Your task to perform on an android device: open app "Etsy: Buy & Sell Unique Items" (install if not already installed) and go to login screen Image 0: 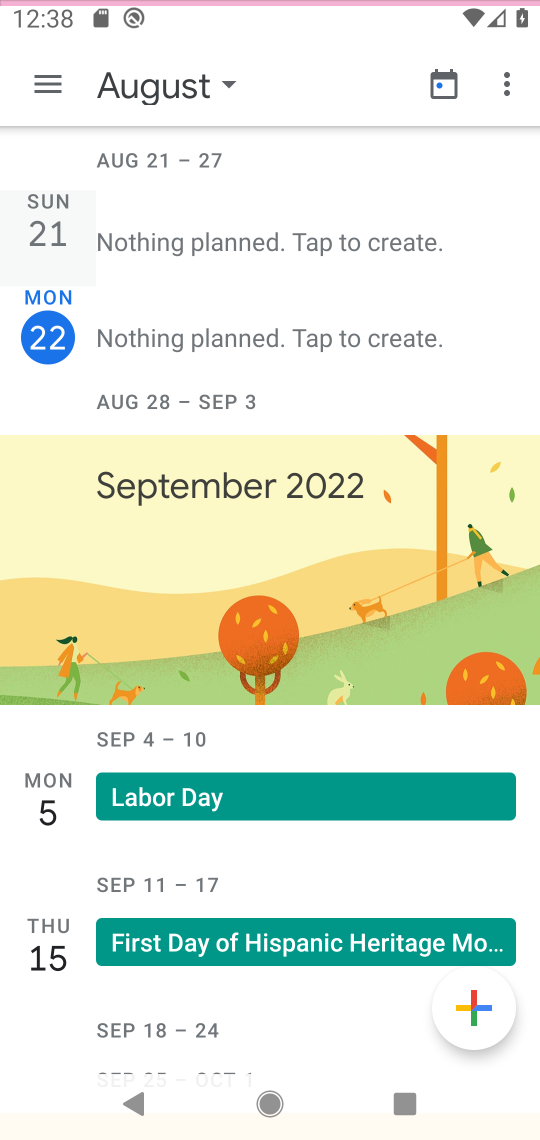
Step 0: press home button
Your task to perform on an android device: open app "Etsy: Buy & Sell Unique Items" (install if not already installed) and go to login screen Image 1: 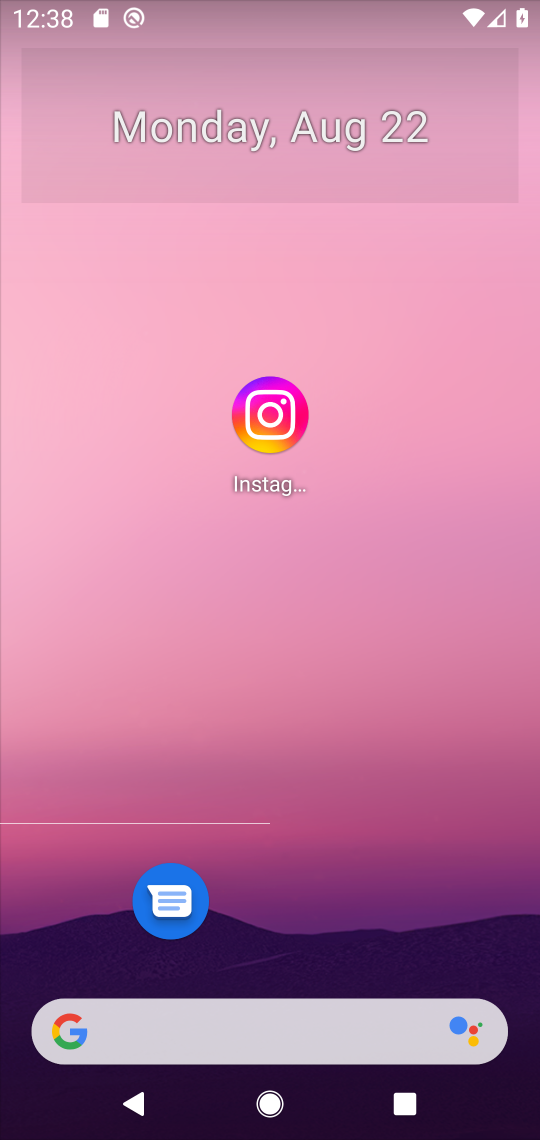
Step 1: press home button
Your task to perform on an android device: open app "Etsy: Buy & Sell Unique Items" (install if not already installed) and go to login screen Image 2: 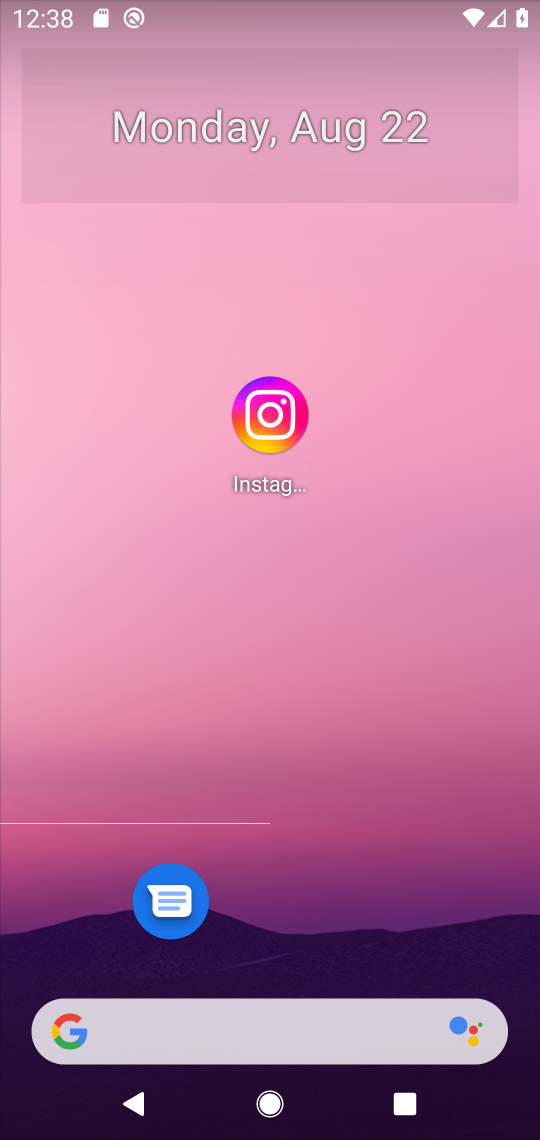
Step 2: press home button
Your task to perform on an android device: open app "Etsy: Buy & Sell Unique Items" (install if not already installed) and go to login screen Image 3: 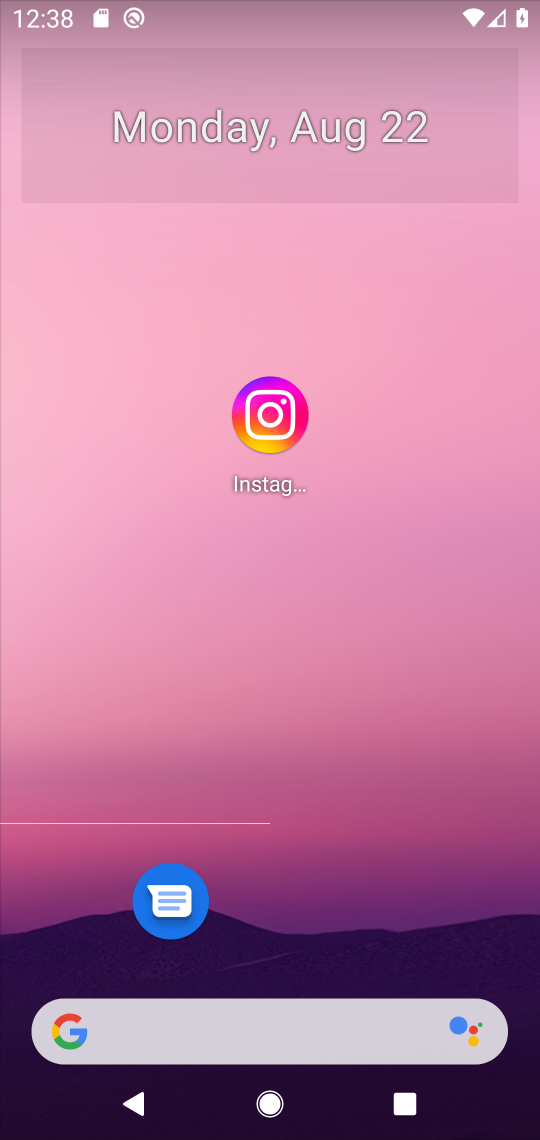
Step 3: drag from (389, 920) to (406, 239)
Your task to perform on an android device: open app "Etsy: Buy & Sell Unique Items" (install if not already installed) and go to login screen Image 4: 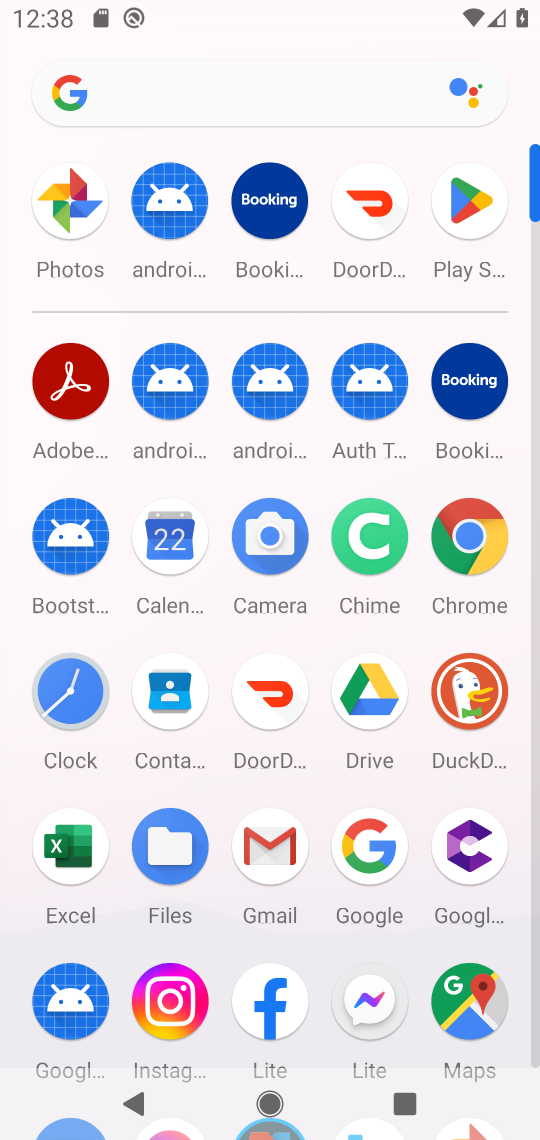
Step 4: click (441, 221)
Your task to perform on an android device: open app "Etsy: Buy & Sell Unique Items" (install if not already installed) and go to login screen Image 5: 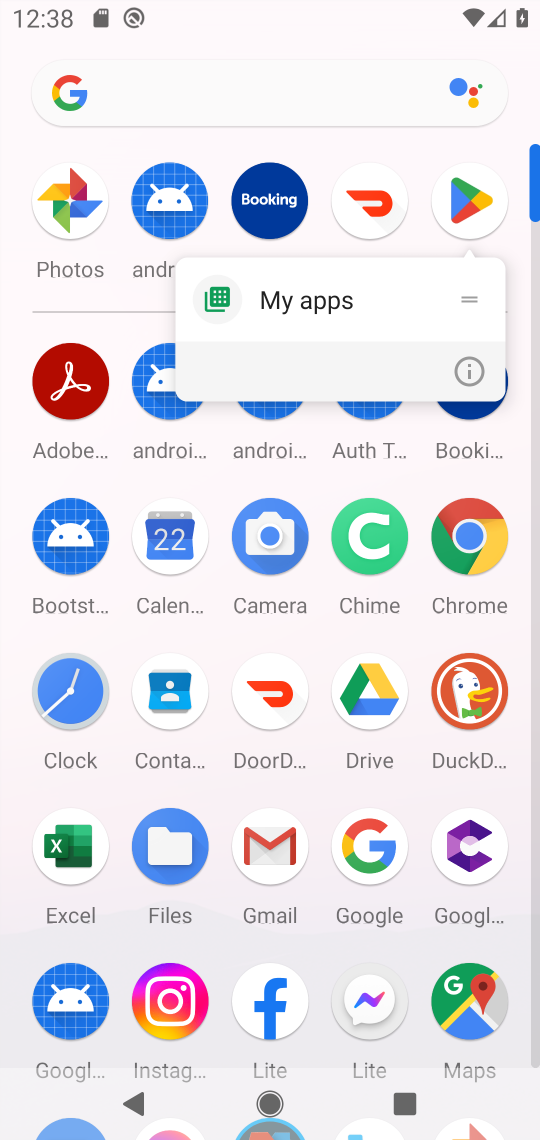
Step 5: click (477, 214)
Your task to perform on an android device: open app "Etsy: Buy & Sell Unique Items" (install if not already installed) and go to login screen Image 6: 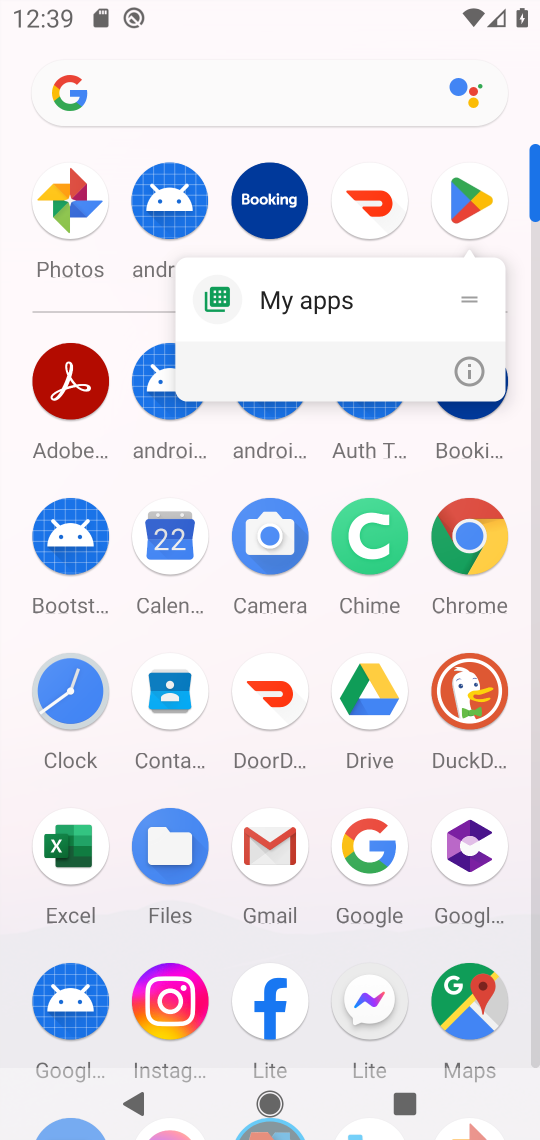
Step 6: click (477, 214)
Your task to perform on an android device: open app "Etsy: Buy & Sell Unique Items" (install if not already installed) and go to login screen Image 7: 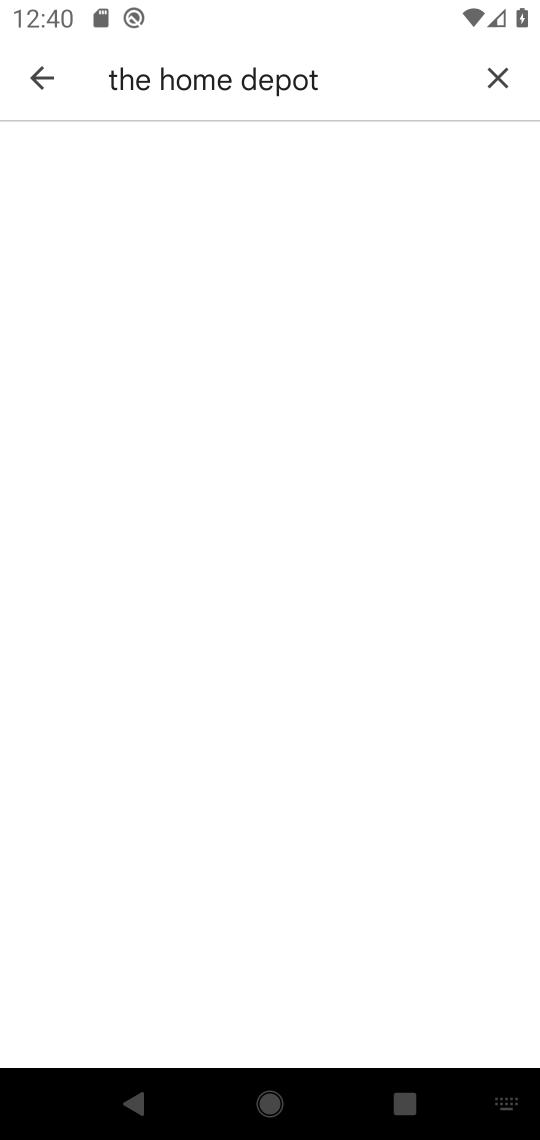
Step 7: click (479, 72)
Your task to perform on an android device: open app "Etsy: Buy & Sell Unique Items" (install if not already installed) and go to login screen Image 8: 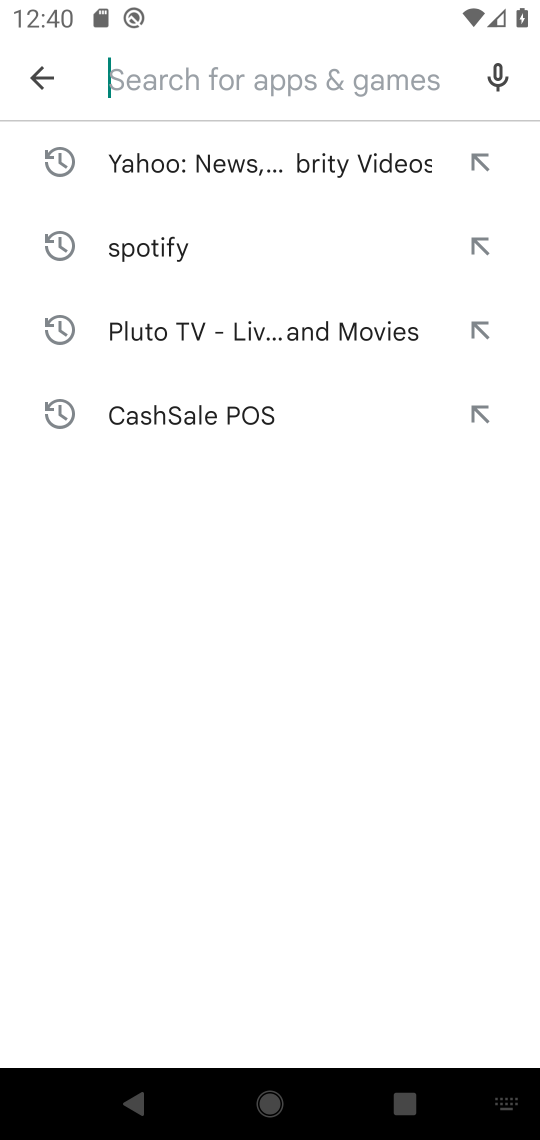
Step 8: type ""
Your task to perform on an android device: open app "Etsy: Buy & Sell Unique Items" (install if not already installed) and go to login screen Image 9: 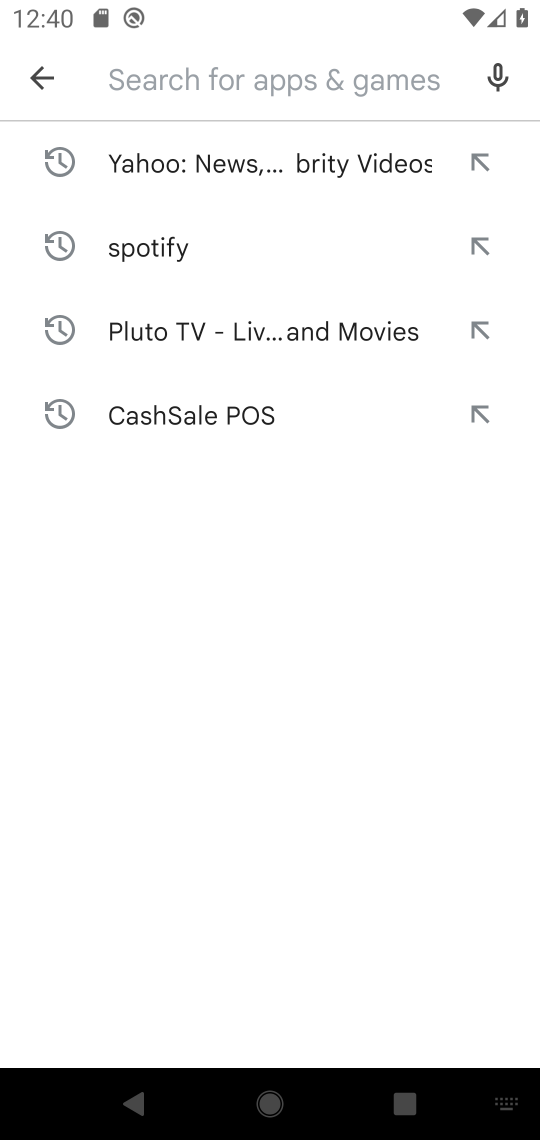
Step 9: click (335, 77)
Your task to perform on an android device: open app "Etsy: Buy & Sell Unique Items" (install if not already installed) and go to login screen Image 10: 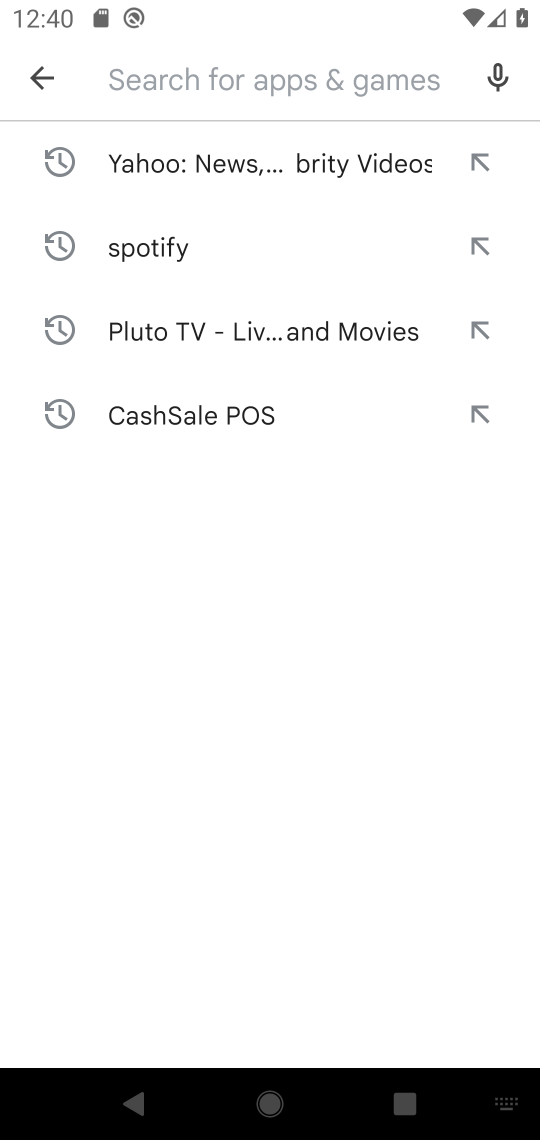
Step 10: type "etsy"
Your task to perform on an android device: open app "Etsy: Buy & Sell Unique Items" (install if not already installed) and go to login screen Image 11: 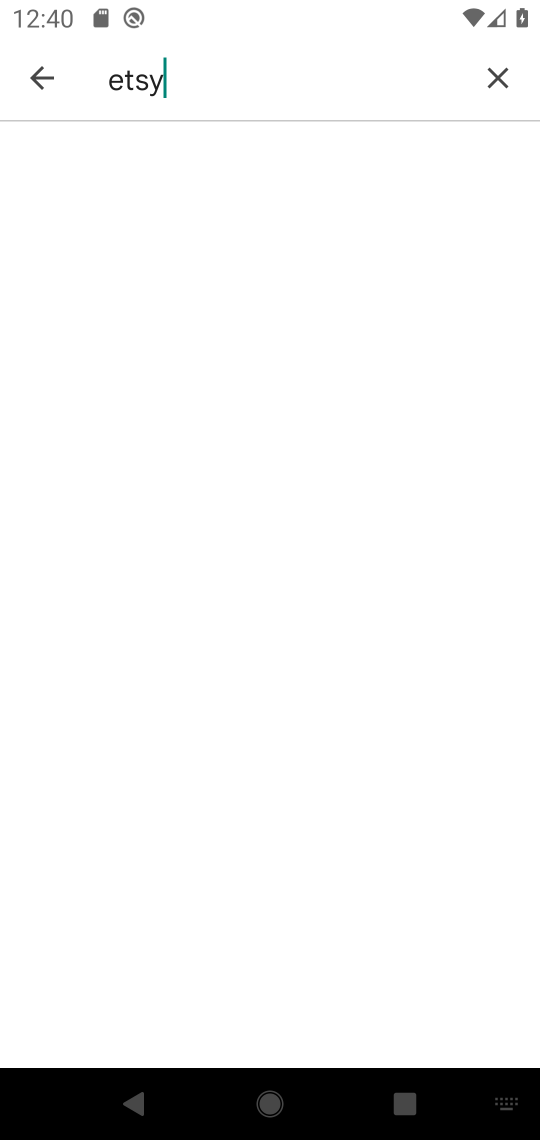
Step 11: task complete